Your task to perform on an android device: What's the weather? Image 0: 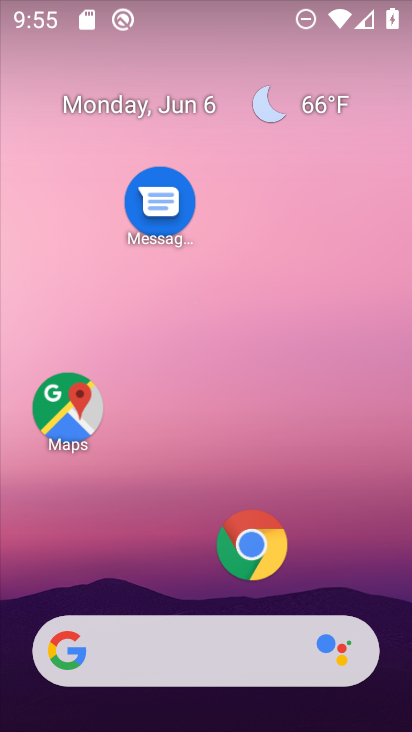
Step 0: click (252, 553)
Your task to perform on an android device: What's the weather? Image 1: 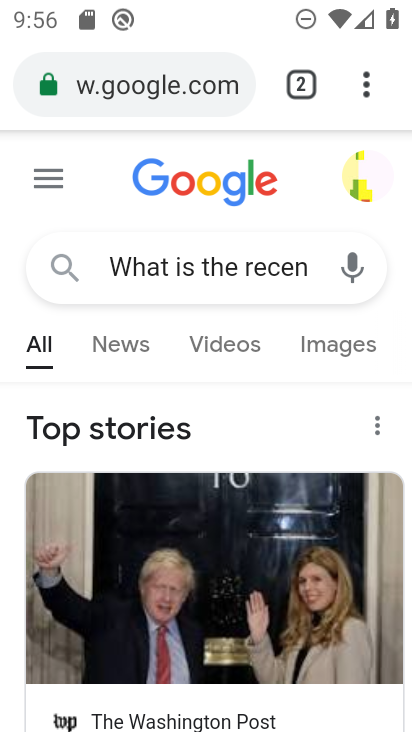
Step 1: click (138, 84)
Your task to perform on an android device: What's the weather? Image 2: 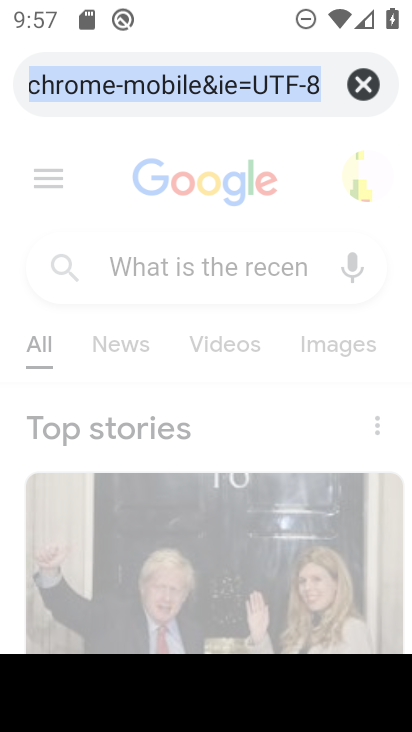
Step 2: type "What's the weather?"
Your task to perform on an android device: What's the weather? Image 3: 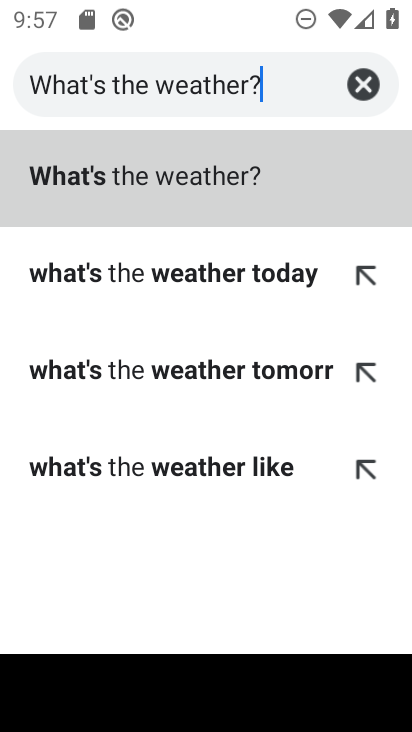
Step 3: click (278, 178)
Your task to perform on an android device: What's the weather? Image 4: 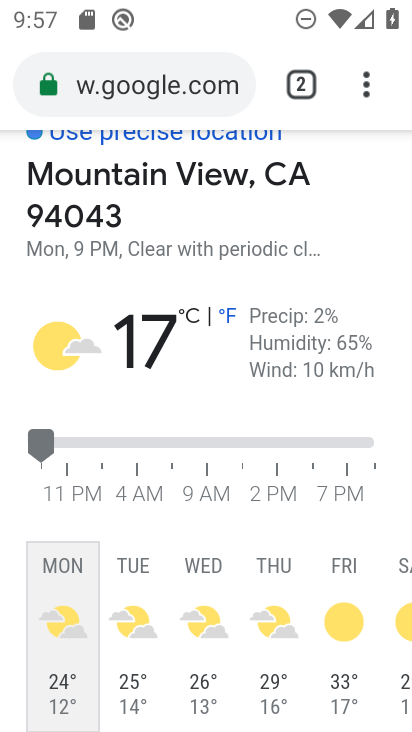
Step 4: task complete